Your task to perform on an android device: Open my contact list Image 0: 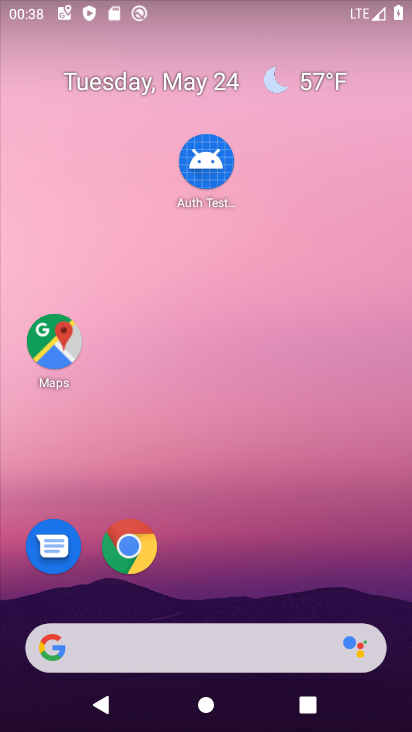
Step 0: drag from (220, 588) to (259, 165)
Your task to perform on an android device: Open my contact list Image 1: 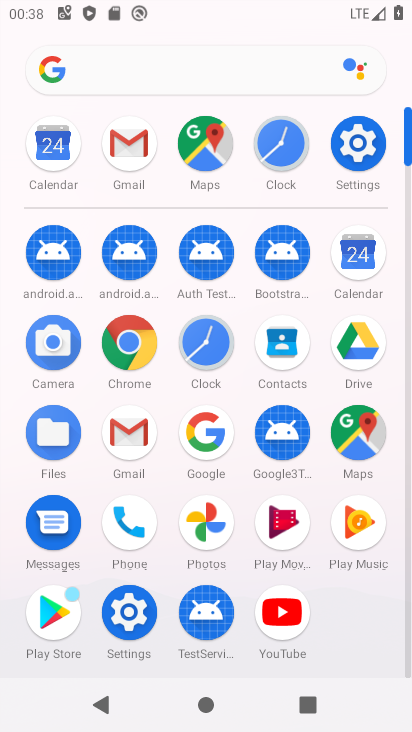
Step 1: click (291, 334)
Your task to perform on an android device: Open my contact list Image 2: 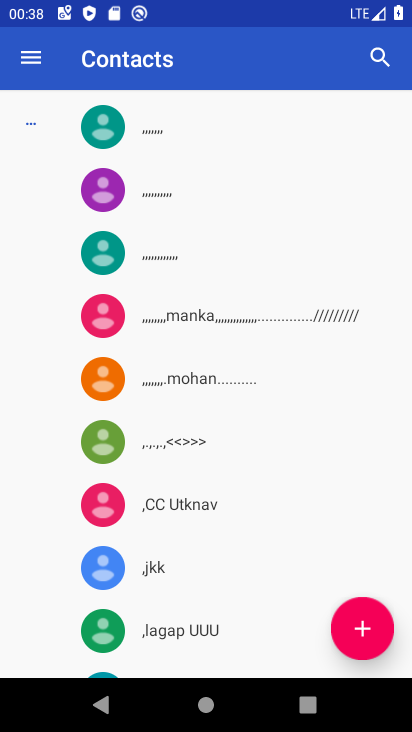
Step 2: task complete